Your task to perform on an android device: Go to Google maps Image 0: 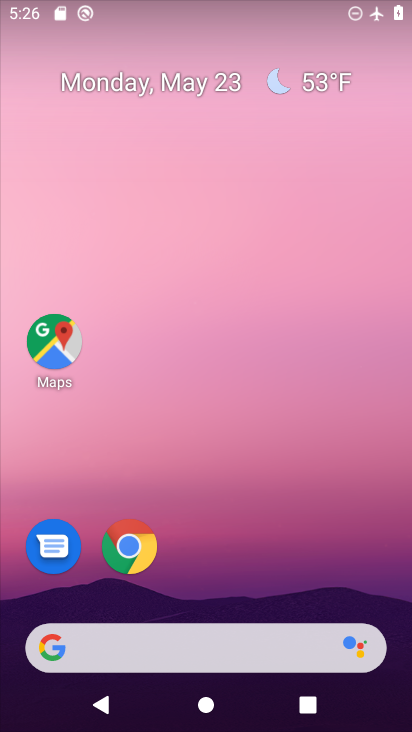
Step 0: click (65, 324)
Your task to perform on an android device: Go to Google maps Image 1: 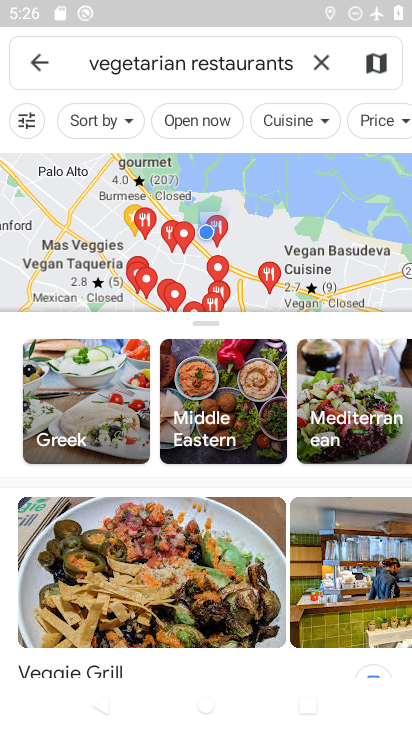
Step 1: task complete